Your task to perform on an android device: turn off notifications settings in the gmail app Image 0: 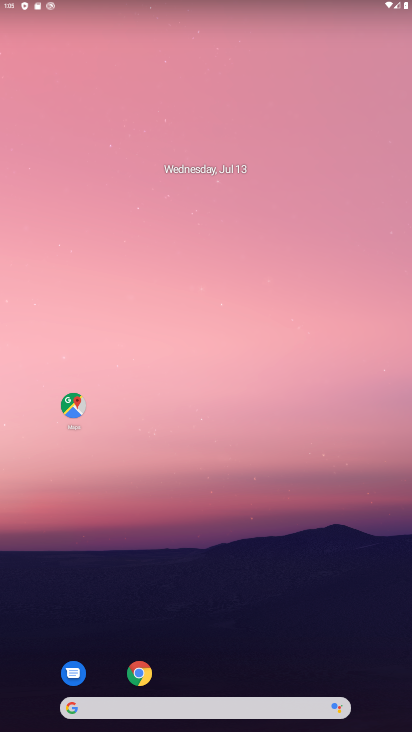
Step 0: drag from (222, 678) to (132, 17)
Your task to perform on an android device: turn off notifications settings in the gmail app Image 1: 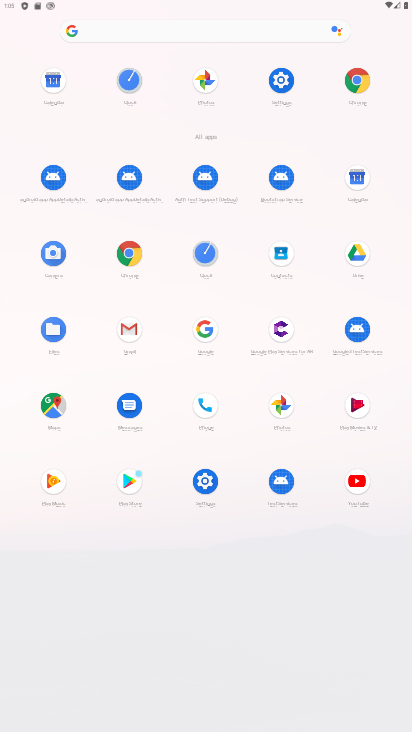
Step 1: click (131, 335)
Your task to perform on an android device: turn off notifications settings in the gmail app Image 2: 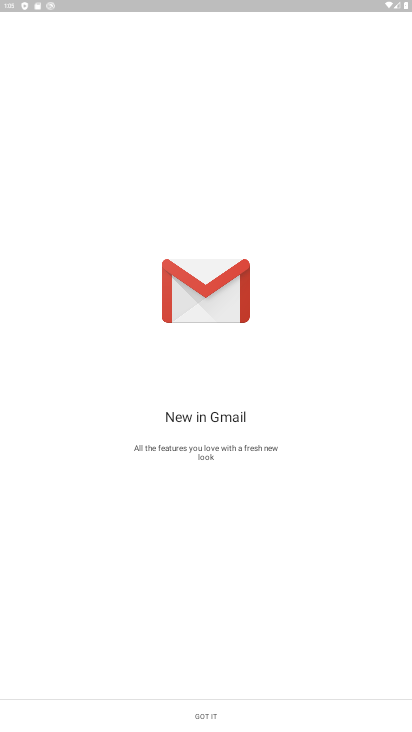
Step 2: click (199, 715)
Your task to perform on an android device: turn off notifications settings in the gmail app Image 3: 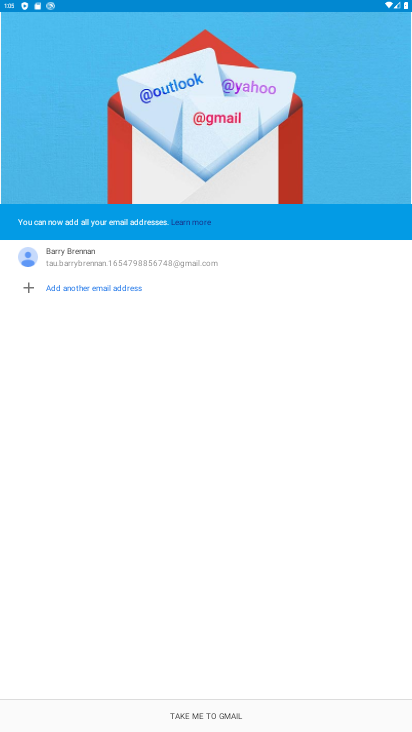
Step 3: click (191, 711)
Your task to perform on an android device: turn off notifications settings in the gmail app Image 4: 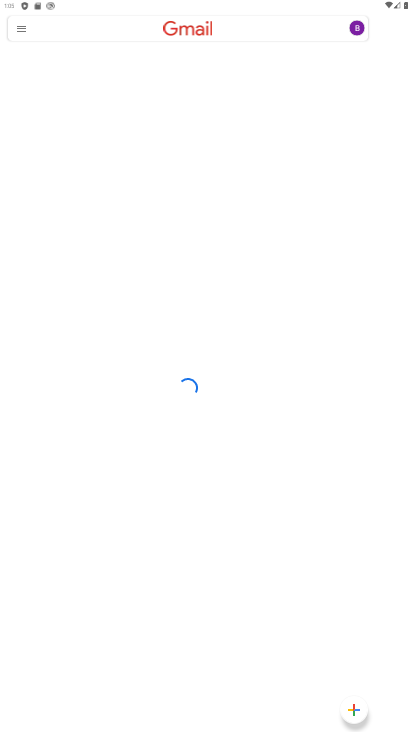
Step 4: click (59, 28)
Your task to perform on an android device: turn off notifications settings in the gmail app Image 5: 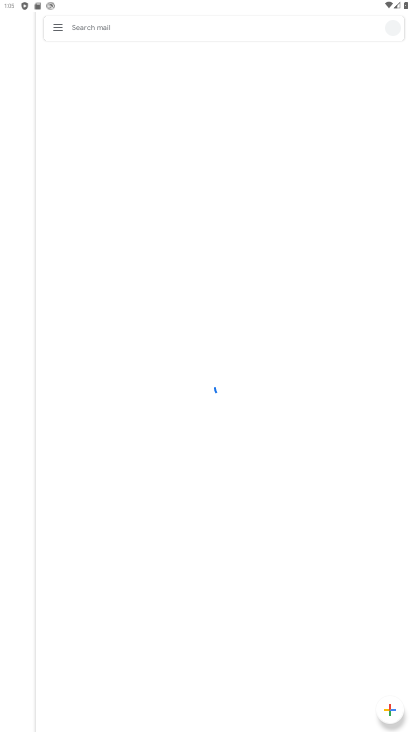
Step 5: click (18, 21)
Your task to perform on an android device: turn off notifications settings in the gmail app Image 6: 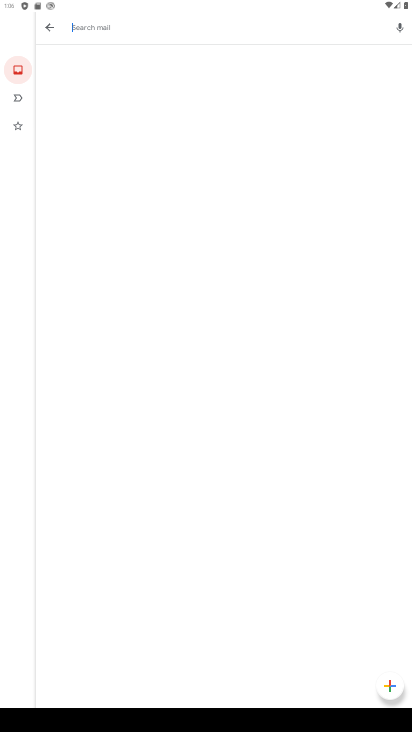
Step 6: click (55, 34)
Your task to perform on an android device: turn off notifications settings in the gmail app Image 7: 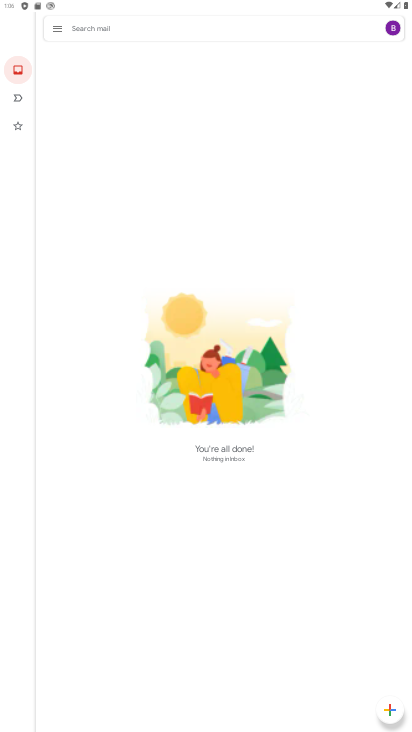
Step 7: click (58, 26)
Your task to perform on an android device: turn off notifications settings in the gmail app Image 8: 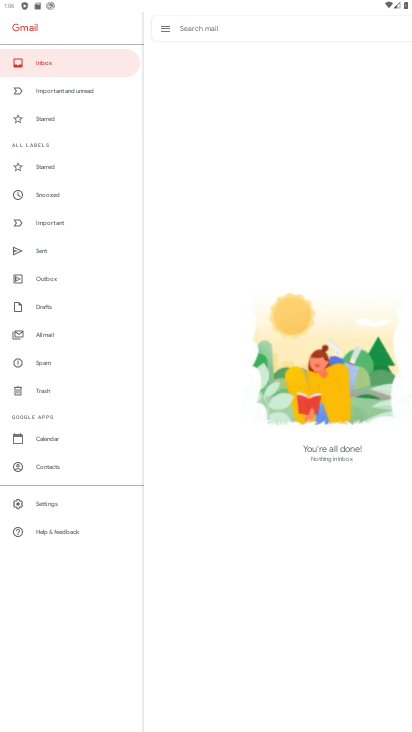
Step 8: click (56, 499)
Your task to perform on an android device: turn off notifications settings in the gmail app Image 9: 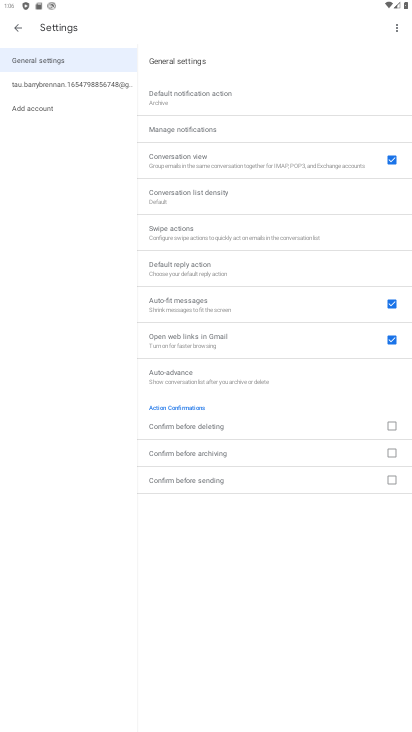
Step 9: click (195, 129)
Your task to perform on an android device: turn off notifications settings in the gmail app Image 10: 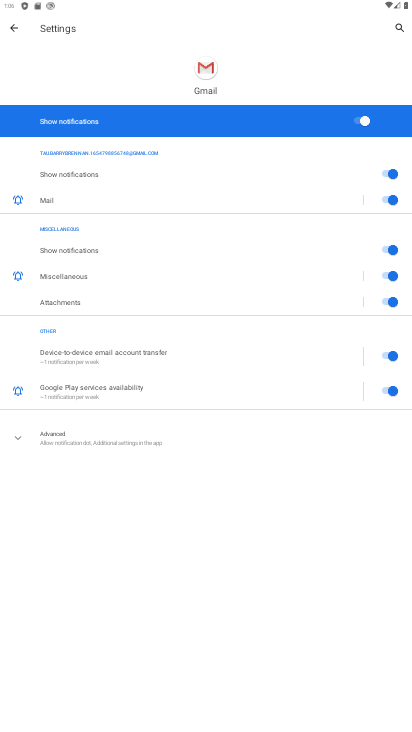
Step 10: click (357, 118)
Your task to perform on an android device: turn off notifications settings in the gmail app Image 11: 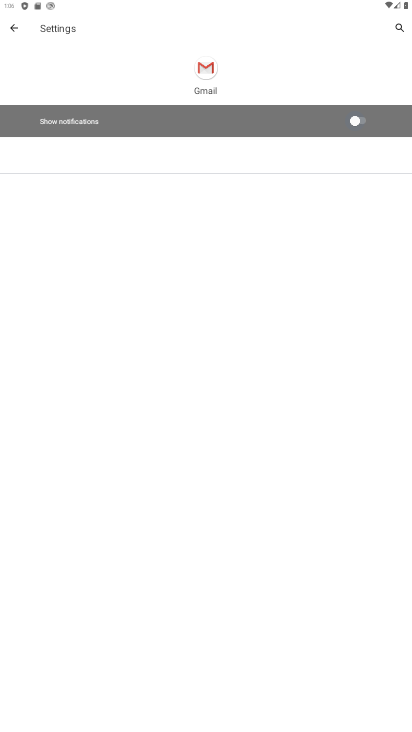
Step 11: task complete